Your task to perform on an android device: toggle show notifications on the lock screen Image 0: 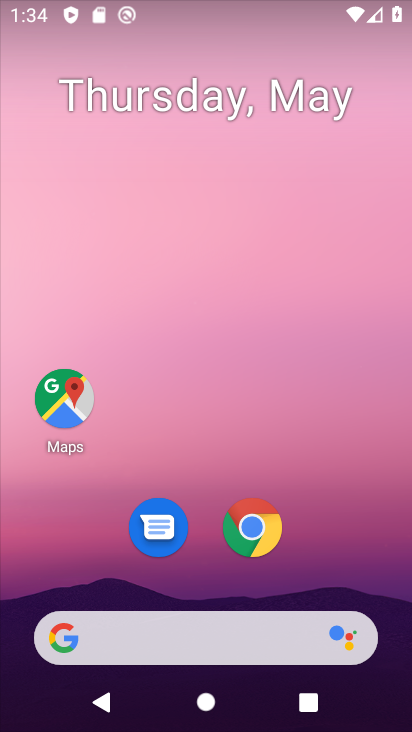
Step 0: click (249, 149)
Your task to perform on an android device: toggle show notifications on the lock screen Image 1: 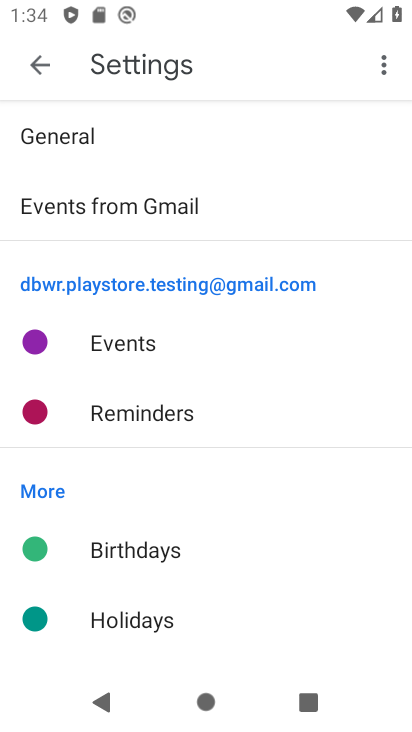
Step 1: press home button
Your task to perform on an android device: toggle show notifications on the lock screen Image 2: 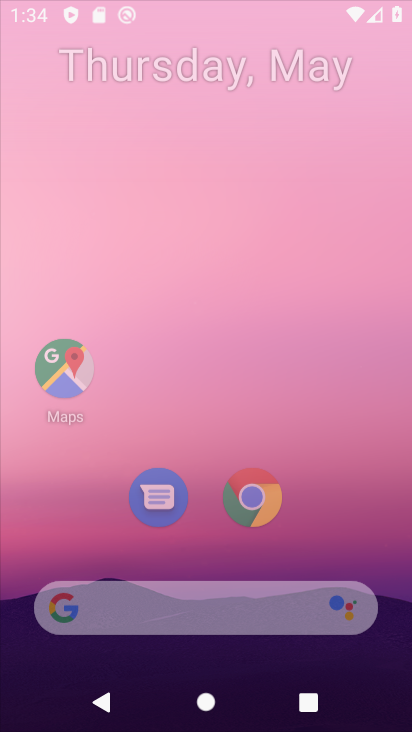
Step 2: drag from (266, 632) to (272, 75)
Your task to perform on an android device: toggle show notifications on the lock screen Image 3: 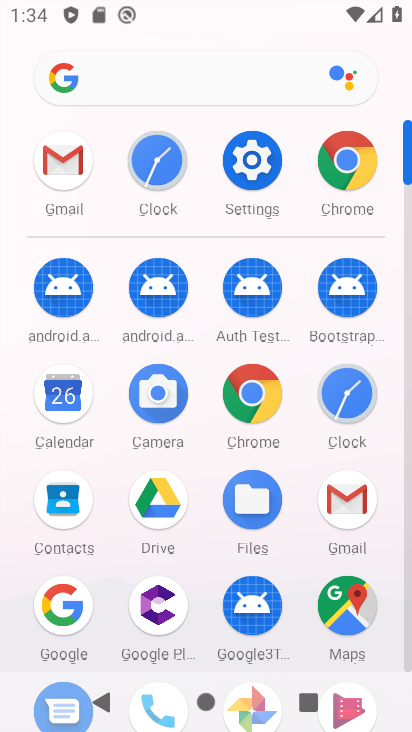
Step 3: click (250, 150)
Your task to perform on an android device: toggle show notifications on the lock screen Image 4: 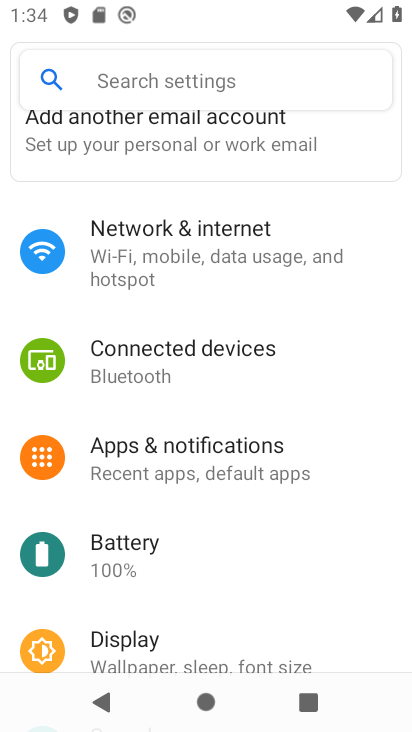
Step 4: click (192, 435)
Your task to perform on an android device: toggle show notifications on the lock screen Image 5: 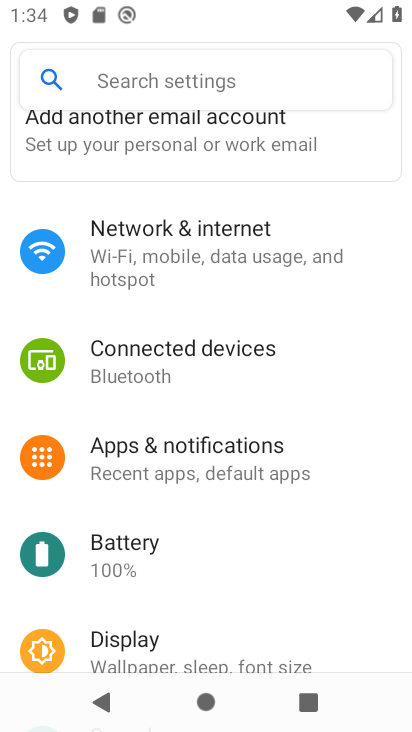
Step 5: click (192, 433)
Your task to perform on an android device: toggle show notifications on the lock screen Image 6: 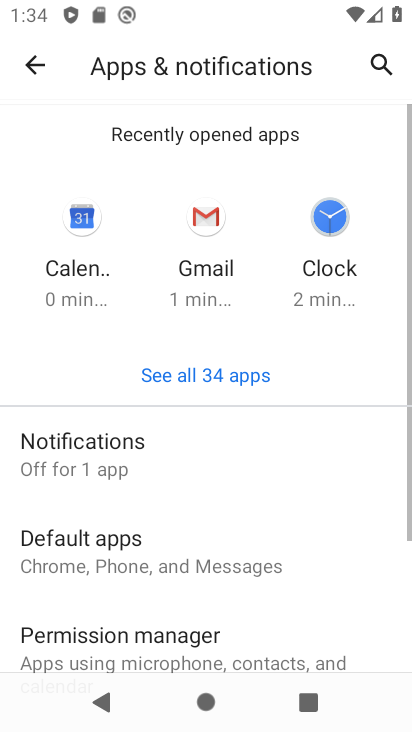
Step 6: drag from (195, 592) to (238, 104)
Your task to perform on an android device: toggle show notifications on the lock screen Image 7: 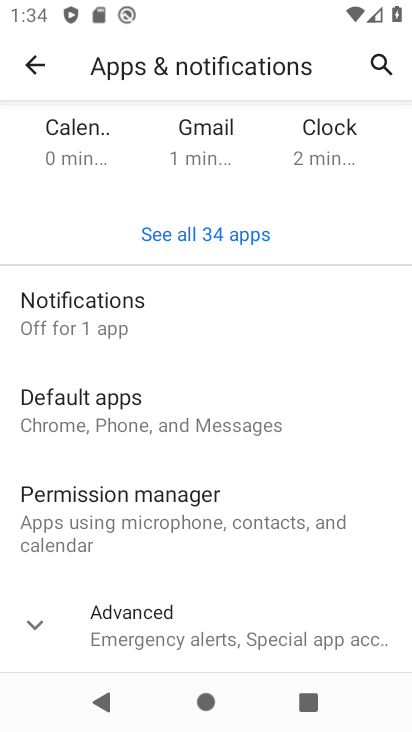
Step 7: click (179, 304)
Your task to perform on an android device: toggle show notifications on the lock screen Image 8: 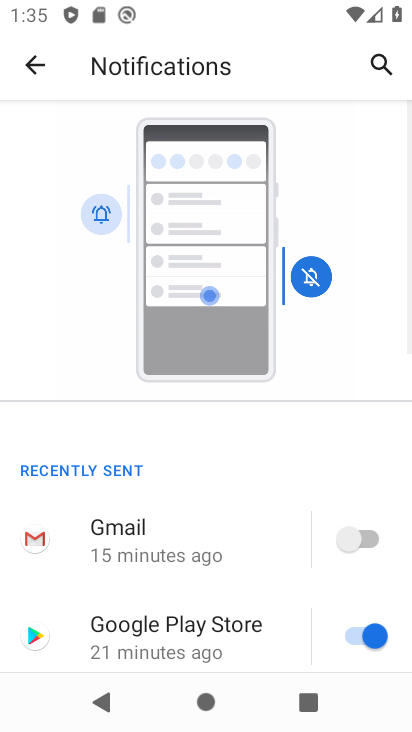
Step 8: drag from (196, 521) to (237, 222)
Your task to perform on an android device: toggle show notifications on the lock screen Image 9: 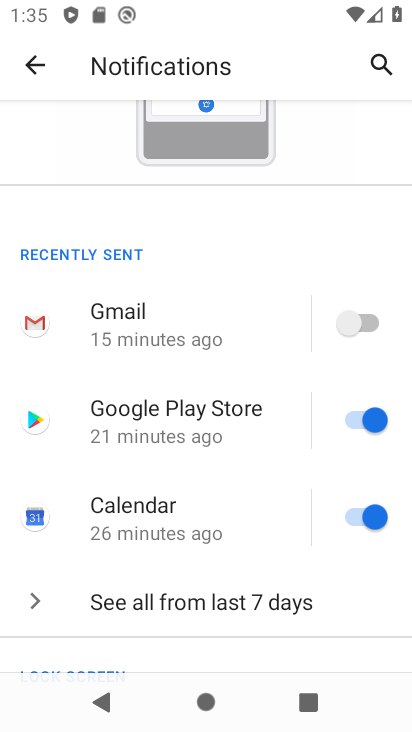
Step 9: drag from (198, 509) to (250, 180)
Your task to perform on an android device: toggle show notifications on the lock screen Image 10: 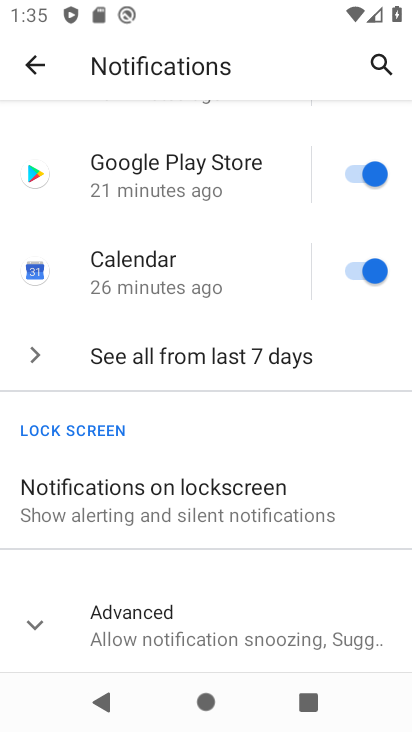
Step 10: click (166, 507)
Your task to perform on an android device: toggle show notifications on the lock screen Image 11: 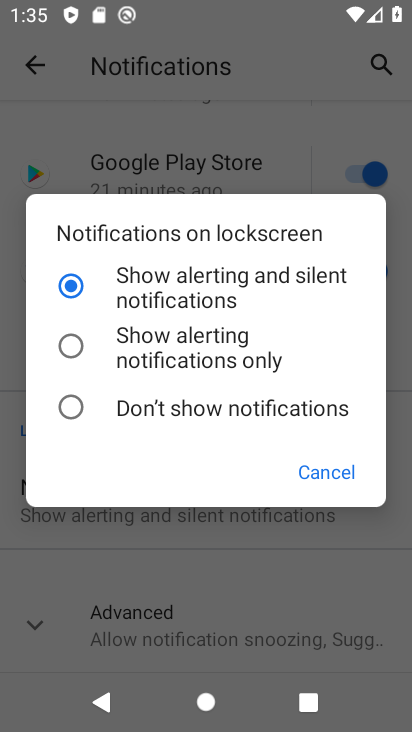
Step 11: click (87, 343)
Your task to perform on an android device: toggle show notifications on the lock screen Image 12: 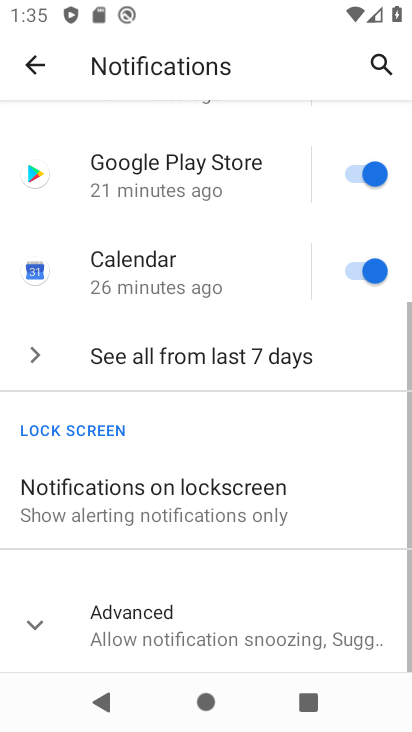
Step 12: task complete